Your task to perform on an android device: Open Google Maps Image 0: 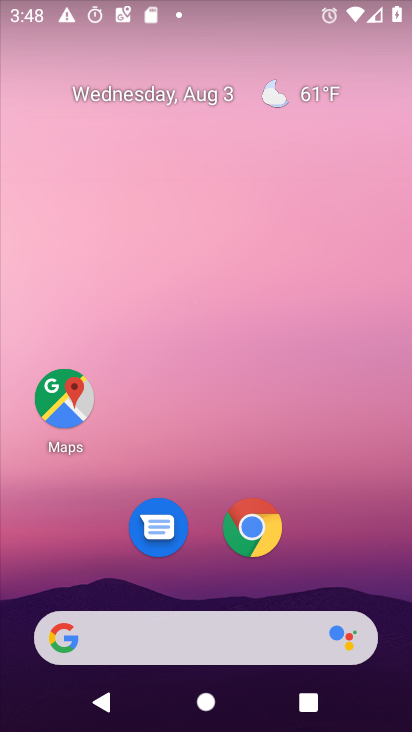
Step 0: drag from (353, 530) to (335, 54)
Your task to perform on an android device: Open Google Maps Image 1: 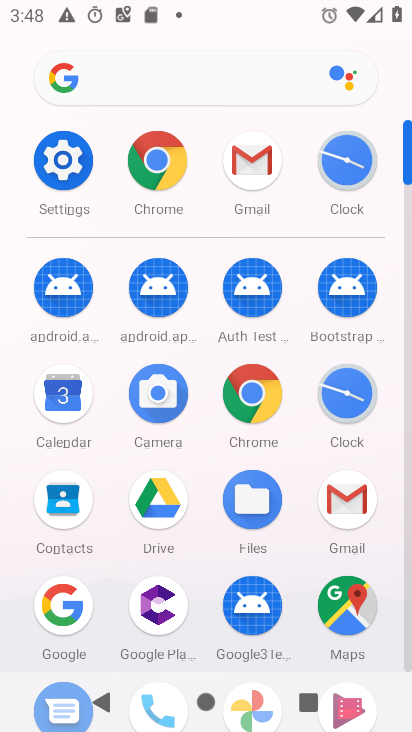
Step 1: click (343, 603)
Your task to perform on an android device: Open Google Maps Image 2: 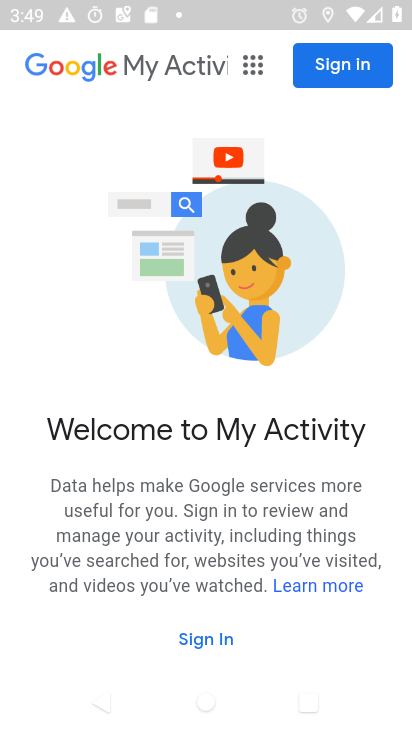
Step 2: task complete